Your task to perform on an android device: Clear the cart on ebay.com. Add acer predator to the cart on ebay.com, then select checkout. Image 0: 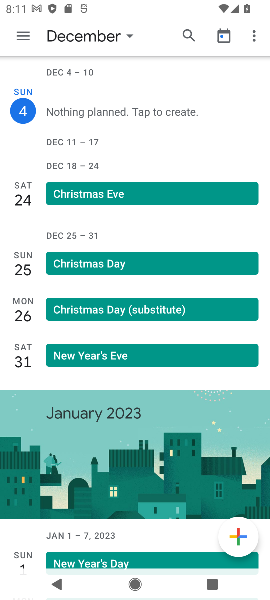
Step 0: press home button
Your task to perform on an android device: Clear the cart on ebay.com. Add acer predator to the cart on ebay.com, then select checkout. Image 1: 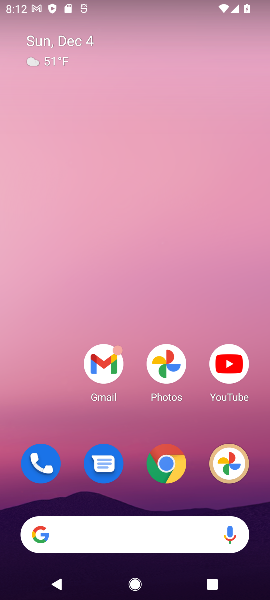
Step 1: click (112, 545)
Your task to perform on an android device: Clear the cart on ebay.com. Add acer predator to the cart on ebay.com, then select checkout. Image 2: 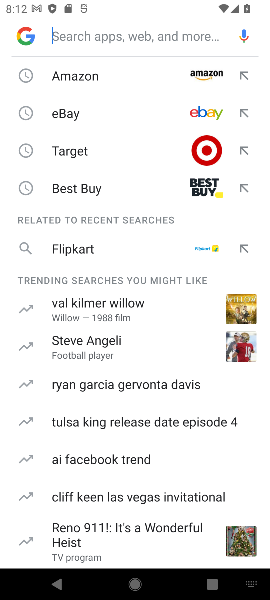
Step 2: task complete